Your task to perform on an android device: toggle wifi Image 0: 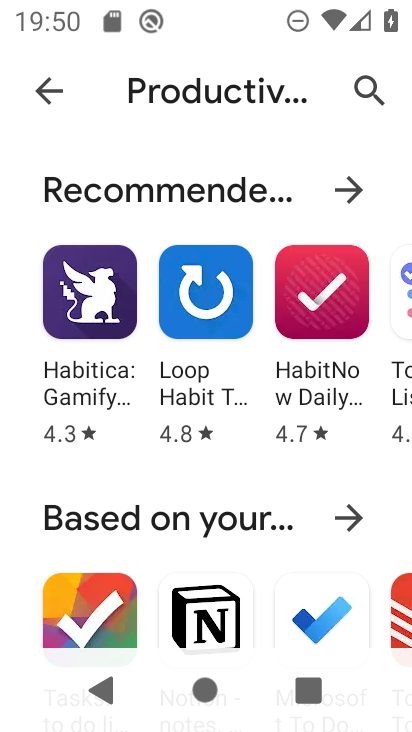
Step 0: press home button
Your task to perform on an android device: toggle wifi Image 1: 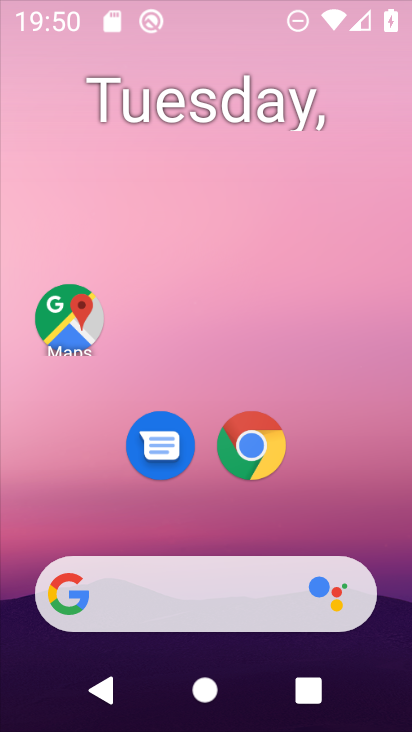
Step 1: drag from (243, 529) to (170, 29)
Your task to perform on an android device: toggle wifi Image 2: 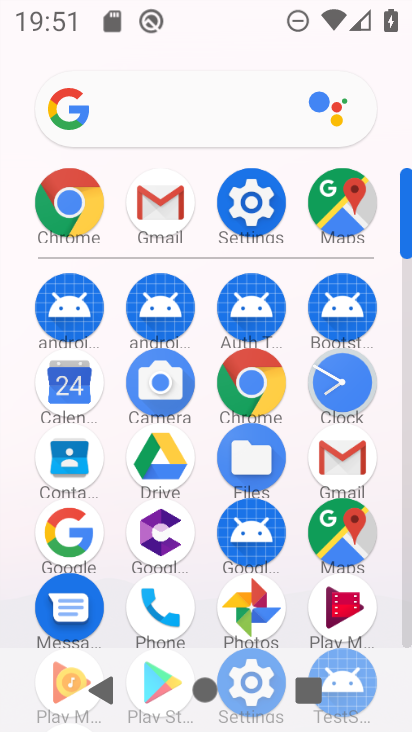
Step 2: click (255, 193)
Your task to perform on an android device: toggle wifi Image 3: 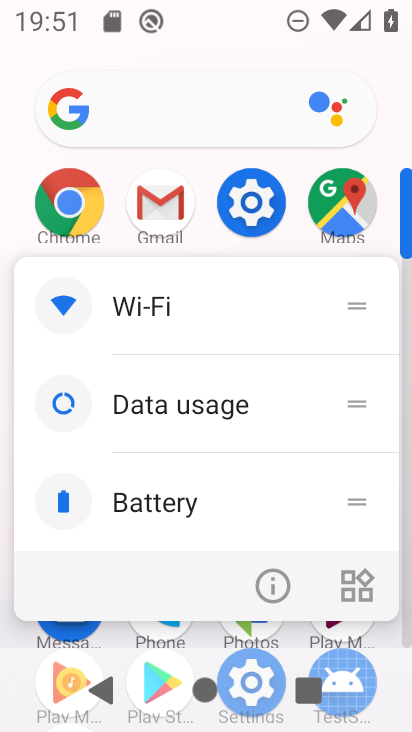
Step 3: click (263, 210)
Your task to perform on an android device: toggle wifi Image 4: 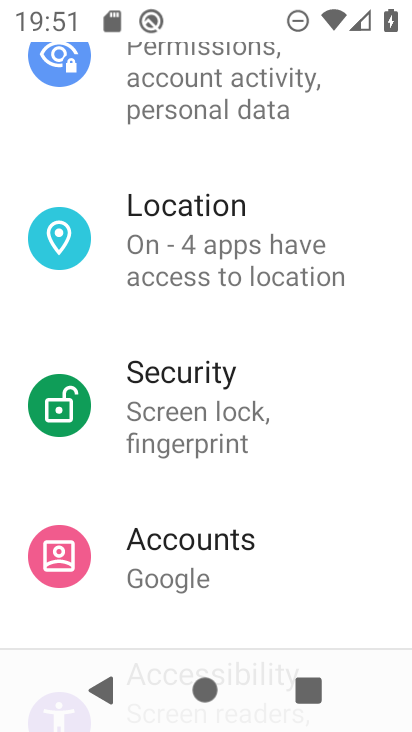
Step 4: drag from (254, 213) to (245, 522)
Your task to perform on an android device: toggle wifi Image 5: 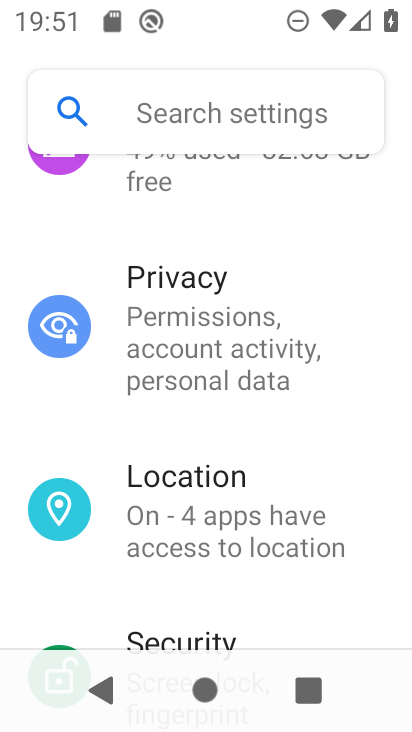
Step 5: drag from (243, 310) to (225, 583)
Your task to perform on an android device: toggle wifi Image 6: 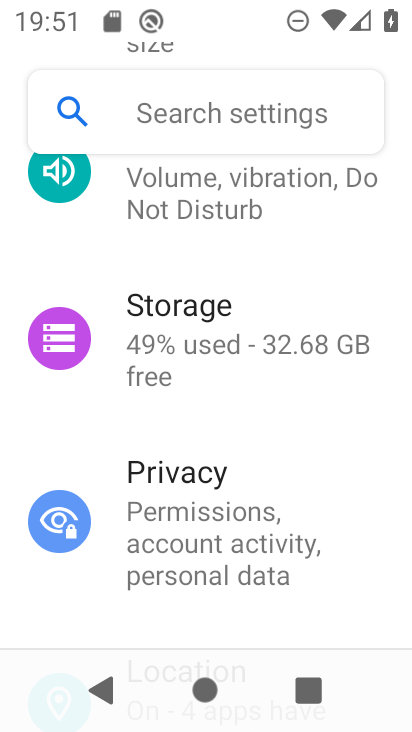
Step 6: drag from (215, 356) to (181, 614)
Your task to perform on an android device: toggle wifi Image 7: 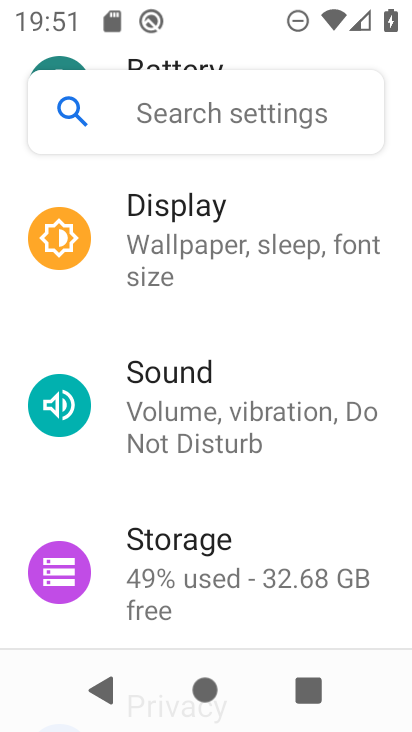
Step 7: drag from (297, 226) to (182, 626)
Your task to perform on an android device: toggle wifi Image 8: 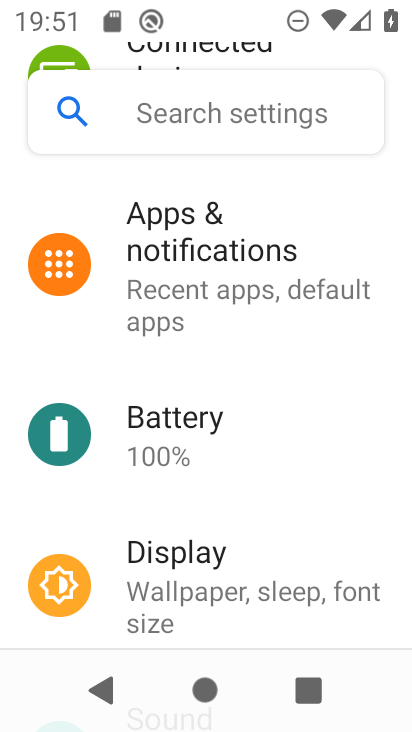
Step 8: drag from (125, 220) to (111, 671)
Your task to perform on an android device: toggle wifi Image 9: 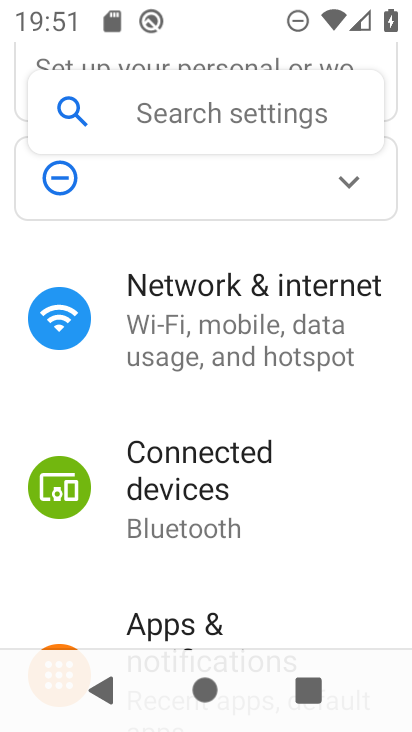
Step 9: click (169, 329)
Your task to perform on an android device: toggle wifi Image 10: 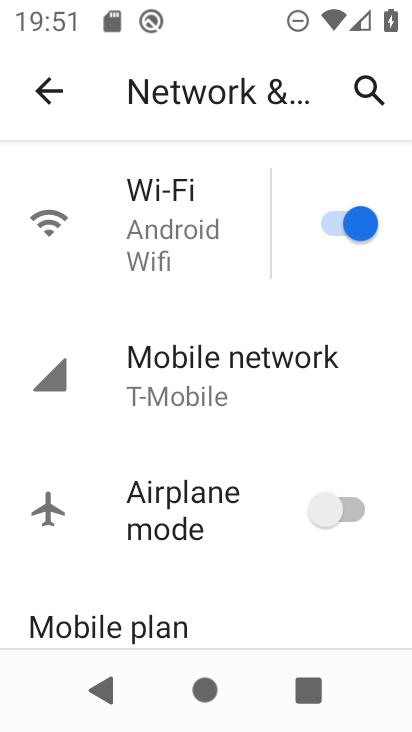
Step 10: click (353, 218)
Your task to perform on an android device: toggle wifi Image 11: 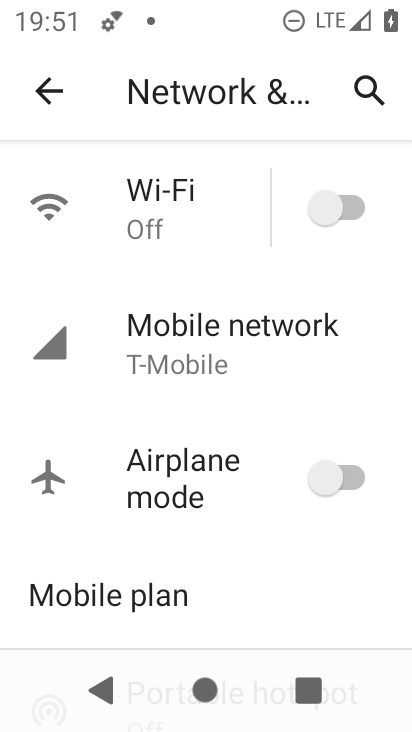
Step 11: task complete